Your task to perform on an android device: Do I have any events today? Image 0: 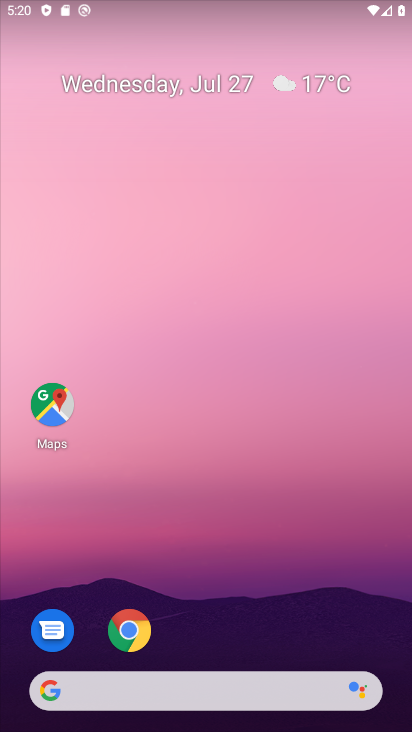
Step 0: press home button
Your task to perform on an android device: Do I have any events today? Image 1: 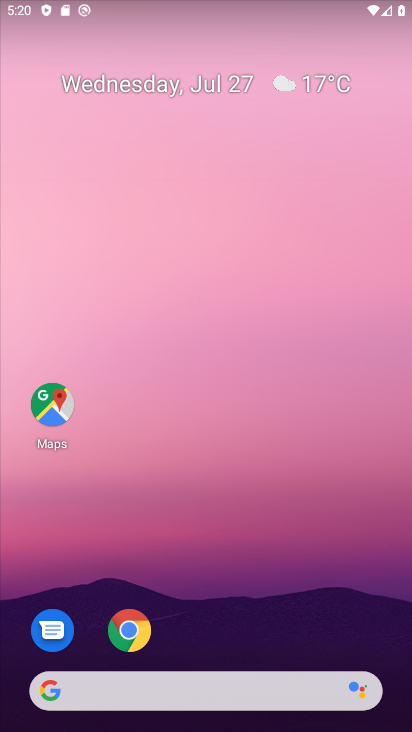
Step 1: drag from (228, 641) to (227, 6)
Your task to perform on an android device: Do I have any events today? Image 2: 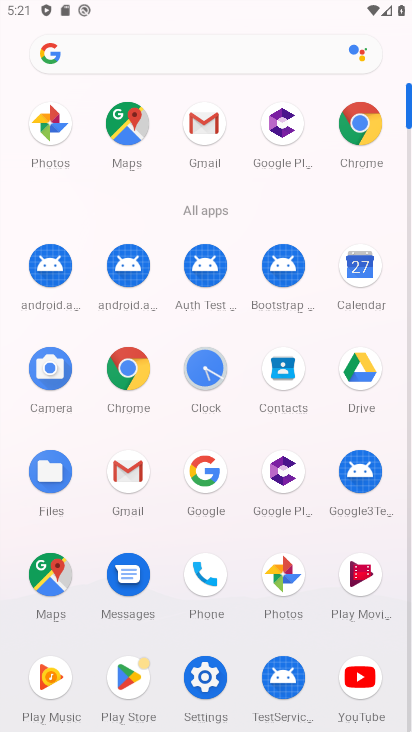
Step 2: click (358, 265)
Your task to perform on an android device: Do I have any events today? Image 3: 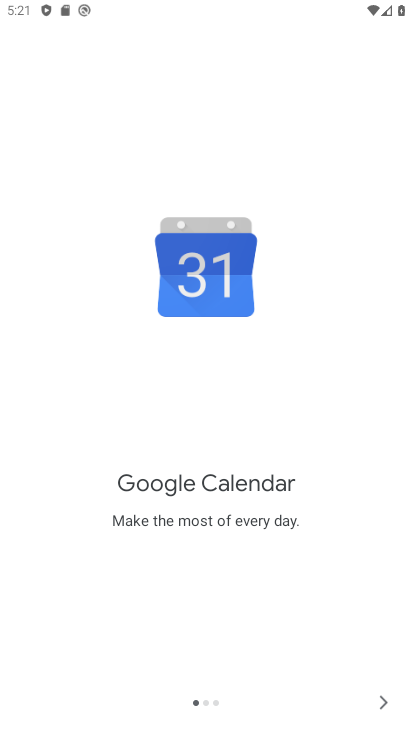
Step 3: click (379, 699)
Your task to perform on an android device: Do I have any events today? Image 4: 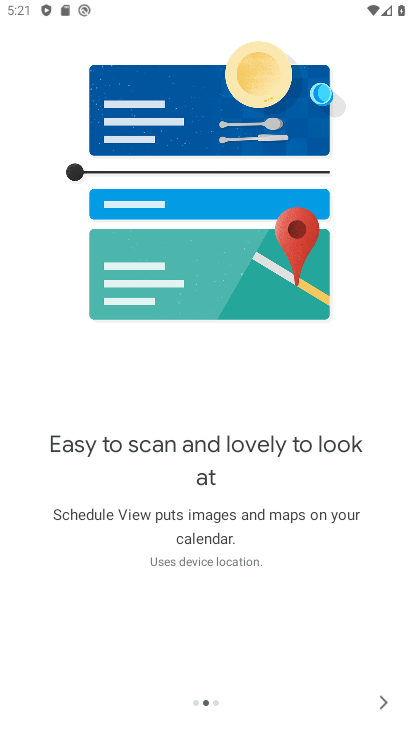
Step 4: click (380, 703)
Your task to perform on an android device: Do I have any events today? Image 5: 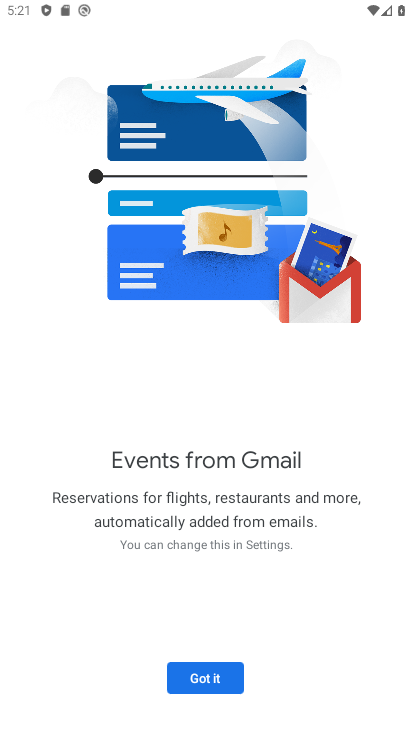
Step 5: click (207, 672)
Your task to perform on an android device: Do I have any events today? Image 6: 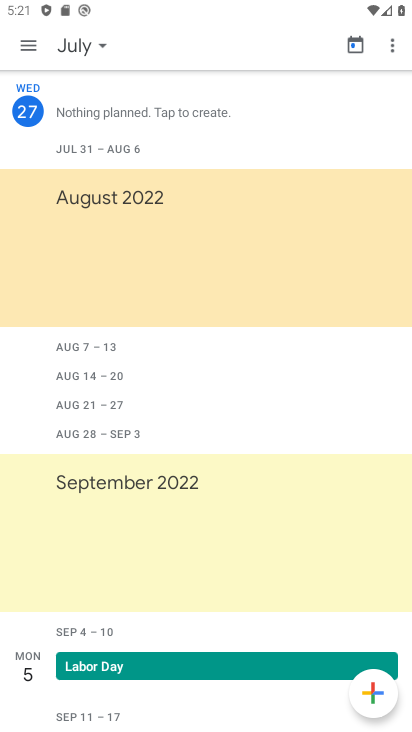
Step 6: click (24, 44)
Your task to perform on an android device: Do I have any events today? Image 7: 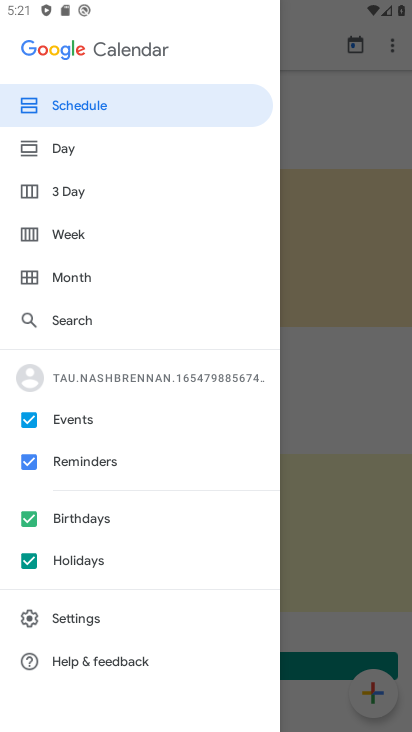
Step 7: click (69, 151)
Your task to perform on an android device: Do I have any events today? Image 8: 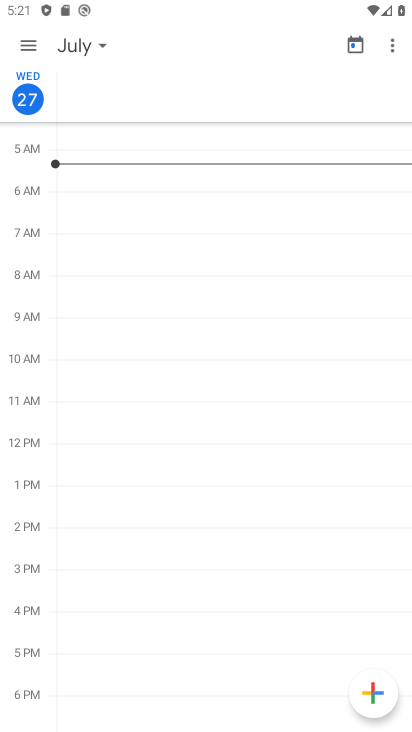
Step 8: click (30, 38)
Your task to perform on an android device: Do I have any events today? Image 9: 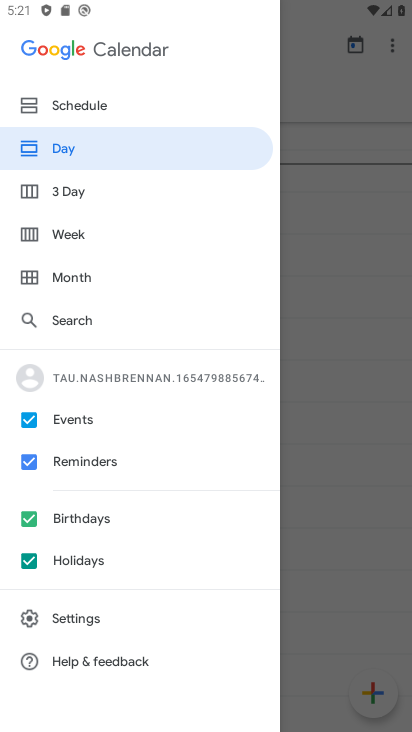
Step 9: click (25, 561)
Your task to perform on an android device: Do I have any events today? Image 10: 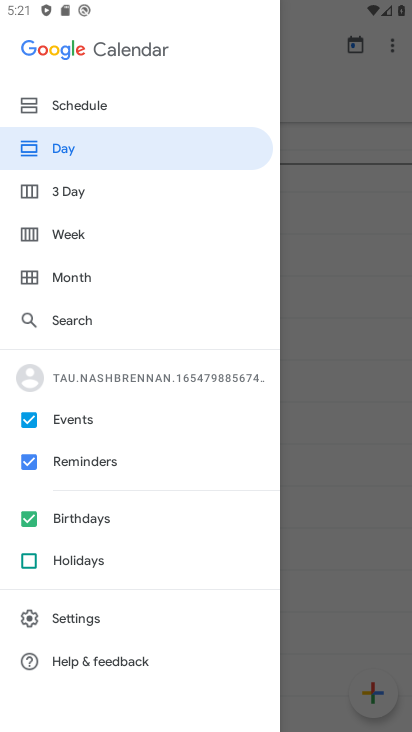
Step 10: click (30, 521)
Your task to perform on an android device: Do I have any events today? Image 11: 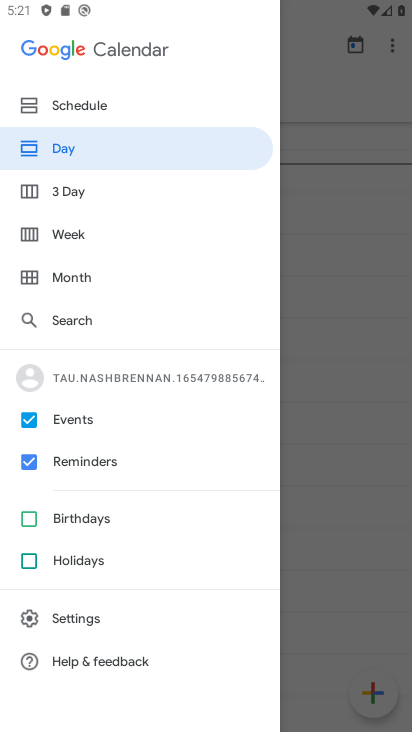
Step 11: click (29, 465)
Your task to perform on an android device: Do I have any events today? Image 12: 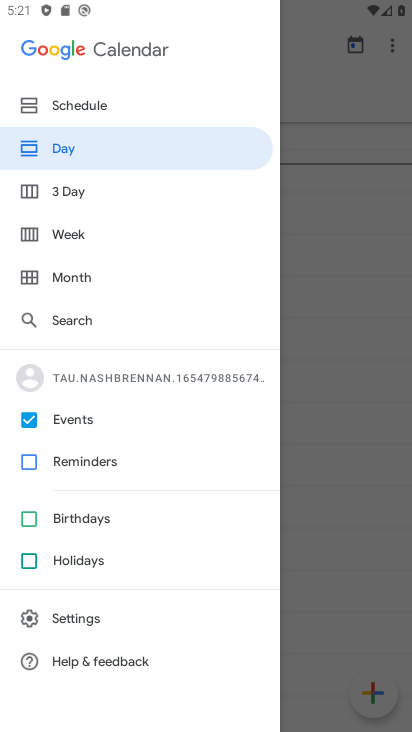
Step 12: click (124, 105)
Your task to perform on an android device: Do I have any events today? Image 13: 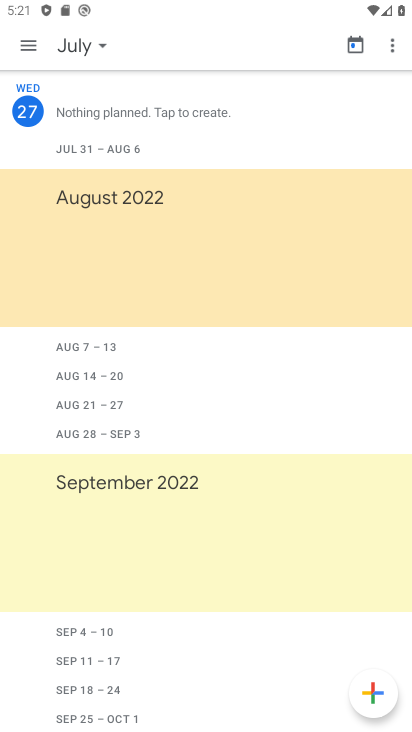
Step 13: click (34, 113)
Your task to perform on an android device: Do I have any events today? Image 14: 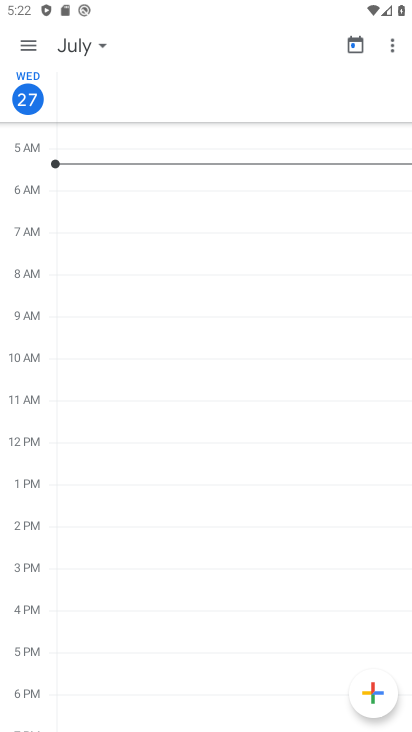
Step 14: task complete